Your task to perform on an android device: Open Reddit Image 0: 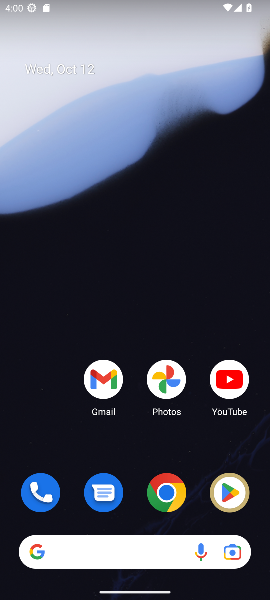
Step 0: click (168, 495)
Your task to perform on an android device: Open Reddit Image 1: 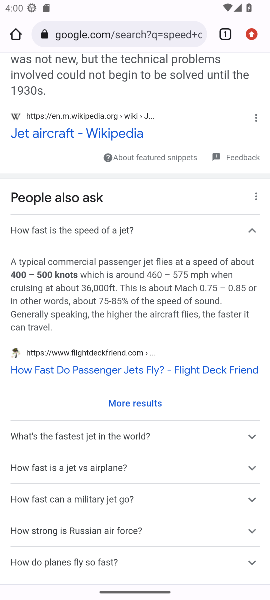
Step 1: drag from (142, 429) to (158, 218)
Your task to perform on an android device: Open Reddit Image 2: 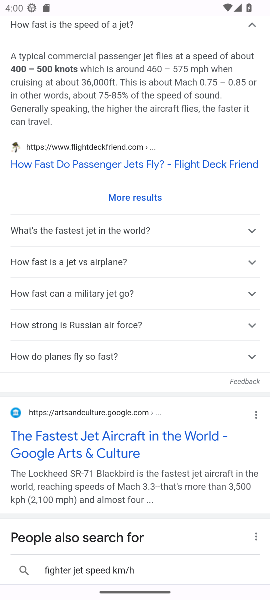
Step 2: drag from (158, 154) to (168, 559)
Your task to perform on an android device: Open Reddit Image 3: 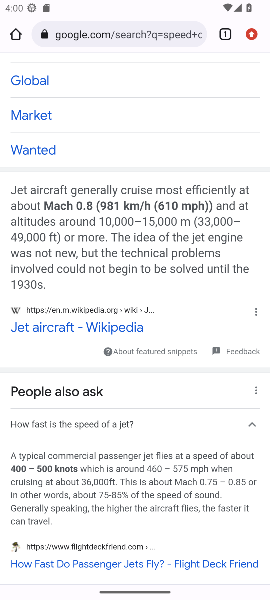
Step 3: click (104, 28)
Your task to perform on an android device: Open Reddit Image 4: 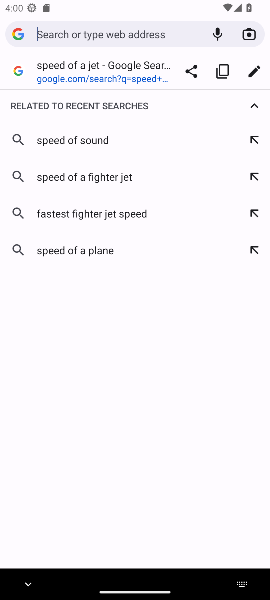
Step 4: task complete